Your task to perform on an android device: delete the emails in spam in the gmail app Image 0: 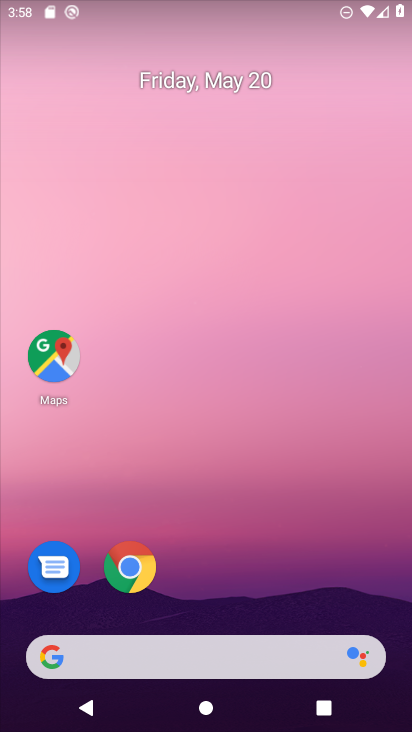
Step 0: drag from (239, 716) to (204, 164)
Your task to perform on an android device: delete the emails in spam in the gmail app Image 1: 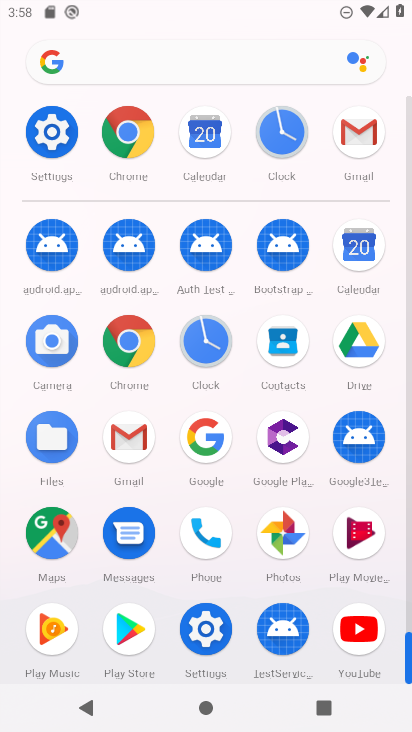
Step 1: click (122, 433)
Your task to perform on an android device: delete the emails in spam in the gmail app Image 2: 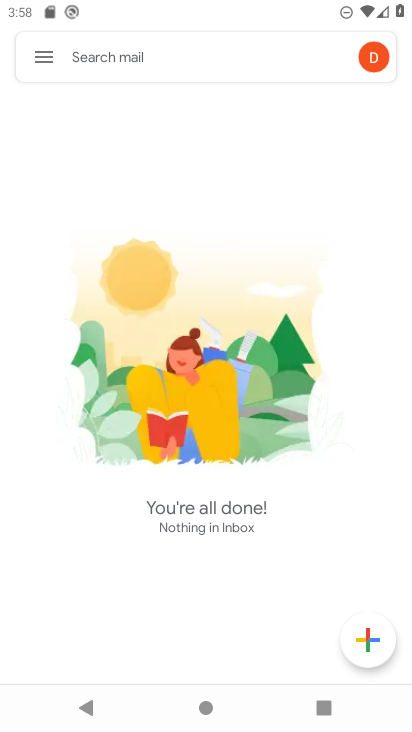
Step 2: task complete